Your task to perform on an android device: delete location history Image 0: 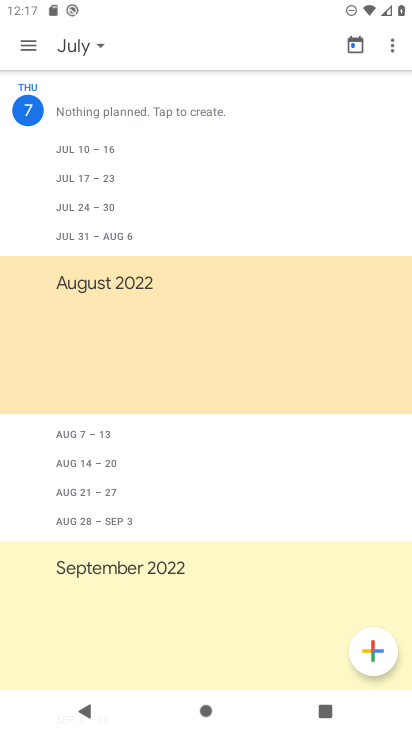
Step 0: press home button
Your task to perform on an android device: delete location history Image 1: 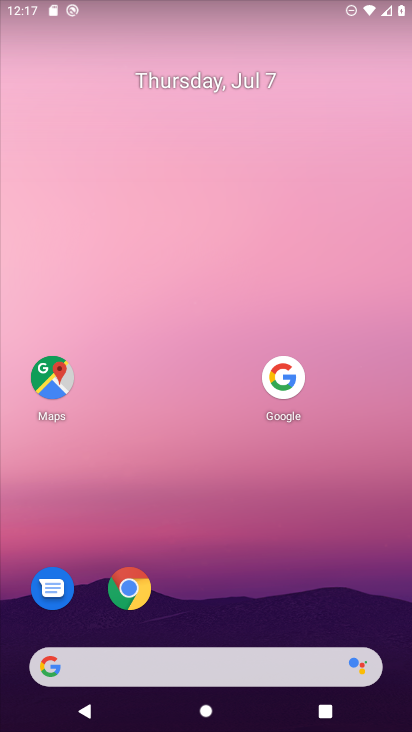
Step 1: drag from (161, 662) to (256, 50)
Your task to perform on an android device: delete location history Image 2: 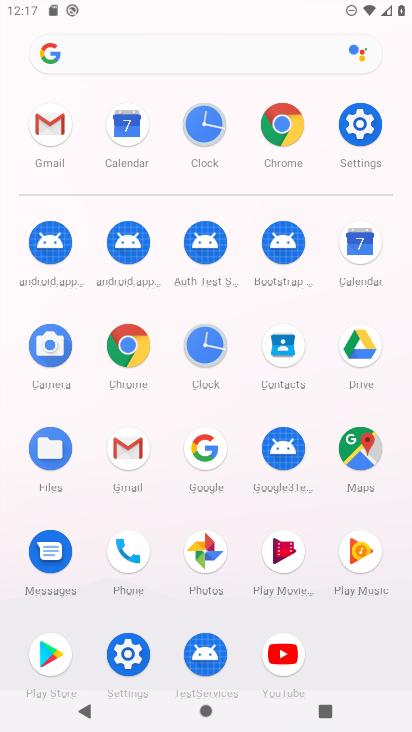
Step 2: click (364, 121)
Your task to perform on an android device: delete location history Image 3: 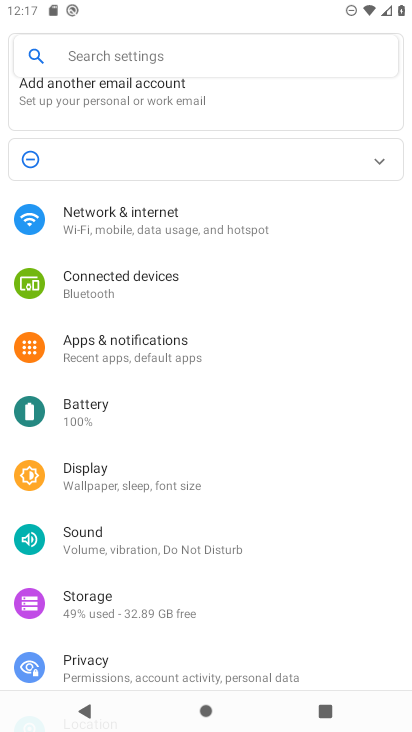
Step 3: drag from (150, 401) to (175, 149)
Your task to perform on an android device: delete location history Image 4: 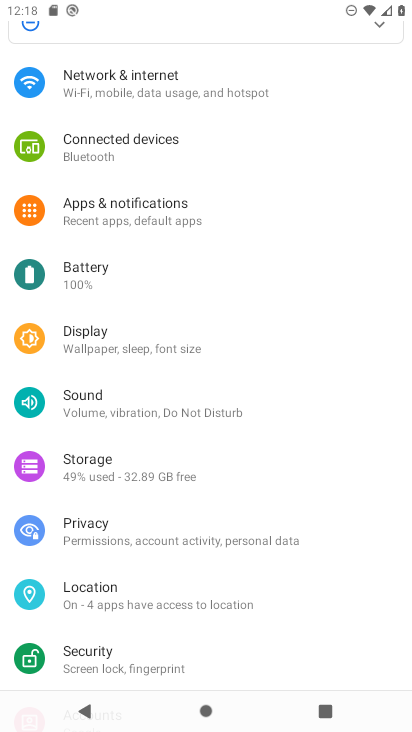
Step 4: drag from (172, 457) to (203, 133)
Your task to perform on an android device: delete location history Image 5: 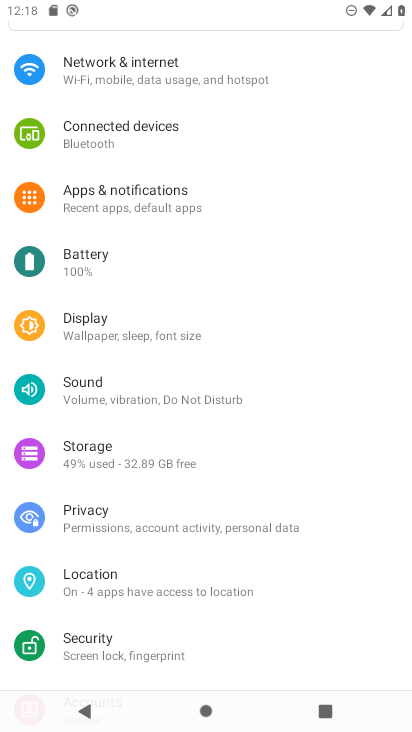
Step 5: click (102, 604)
Your task to perform on an android device: delete location history Image 6: 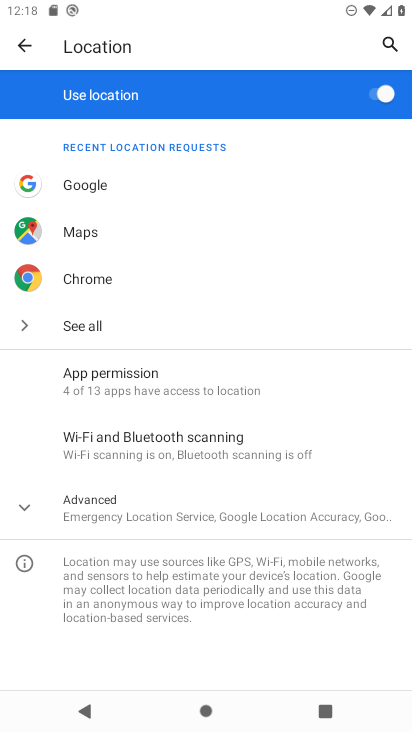
Step 6: click (141, 509)
Your task to perform on an android device: delete location history Image 7: 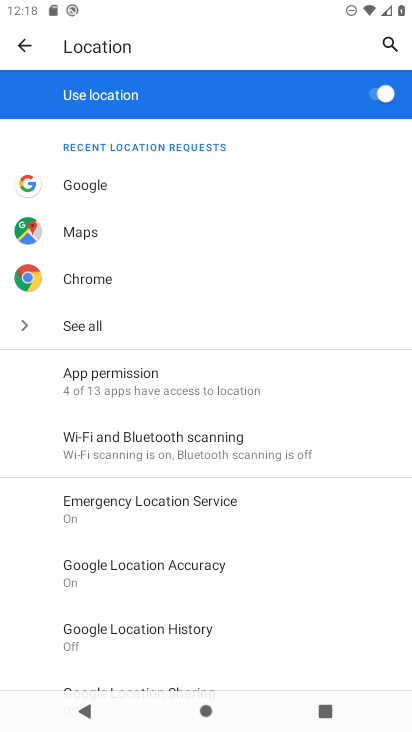
Step 7: drag from (224, 608) to (278, 305)
Your task to perform on an android device: delete location history Image 8: 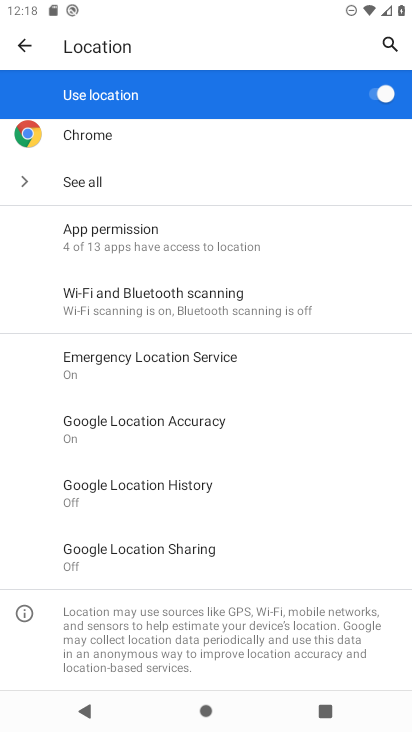
Step 8: click (165, 483)
Your task to perform on an android device: delete location history Image 9: 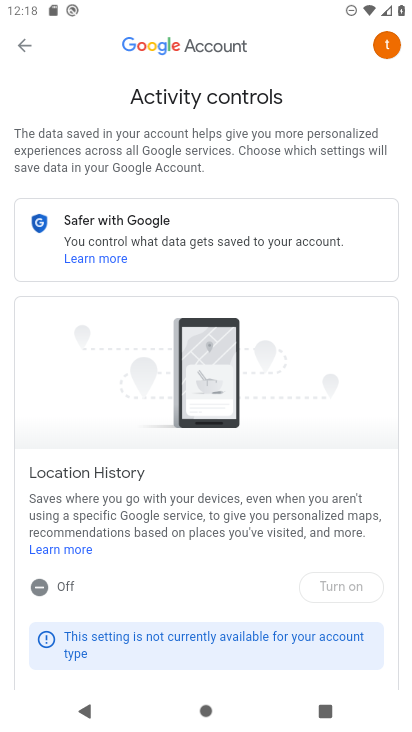
Step 9: task complete